Your task to perform on an android device: Open Yahoo.com Image 0: 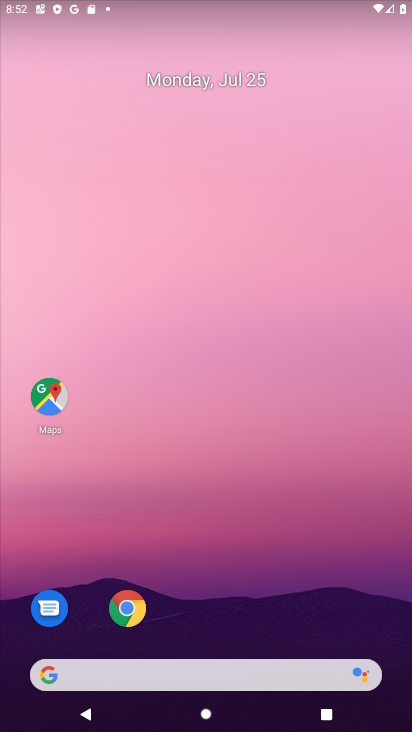
Step 0: click (136, 600)
Your task to perform on an android device: Open Yahoo.com Image 1: 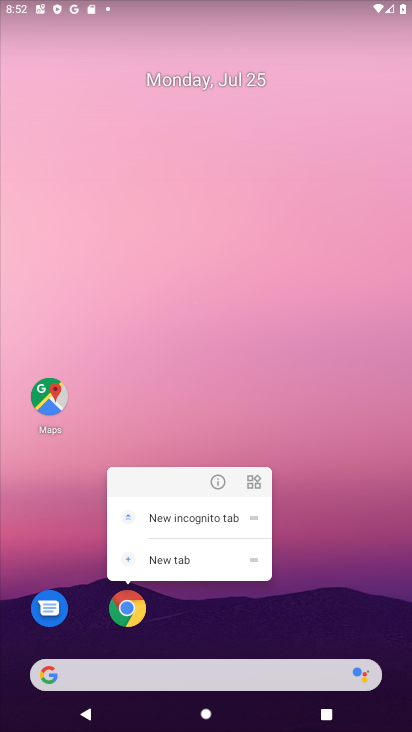
Step 1: click (344, 597)
Your task to perform on an android device: Open Yahoo.com Image 2: 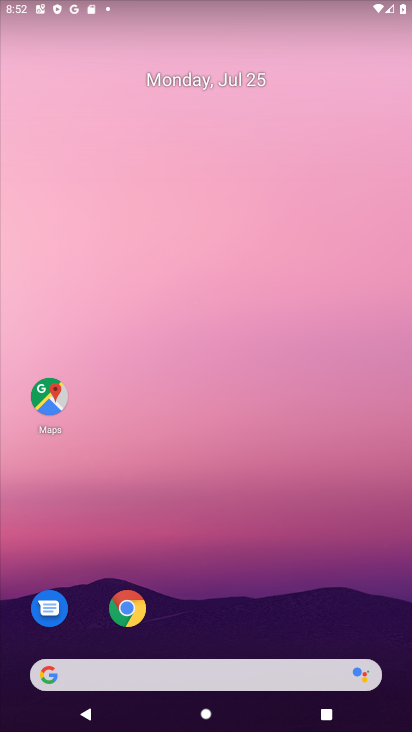
Step 2: click (123, 597)
Your task to perform on an android device: Open Yahoo.com Image 3: 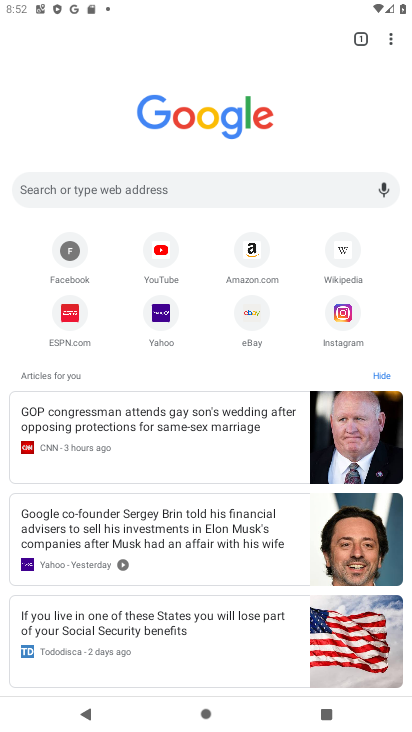
Step 3: click (159, 301)
Your task to perform on an android device: Open Yahoo.com Image 4: 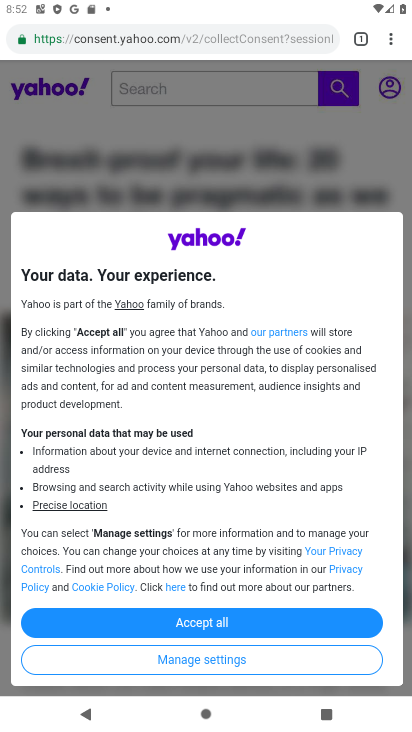
Step 4: task complete